Your task to perform on an android device: clear all cookies in the chrome app Image 0: 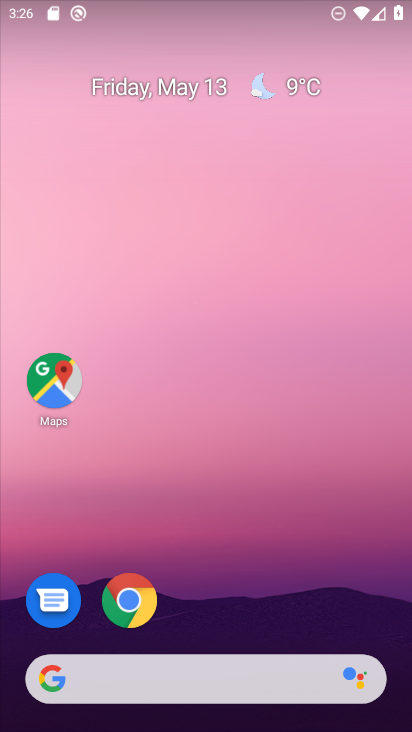
Step 0: drag from (208, 617) to (302, 145)
Your task to perform on an android device: clear all cookies in the chrome app Image 1: 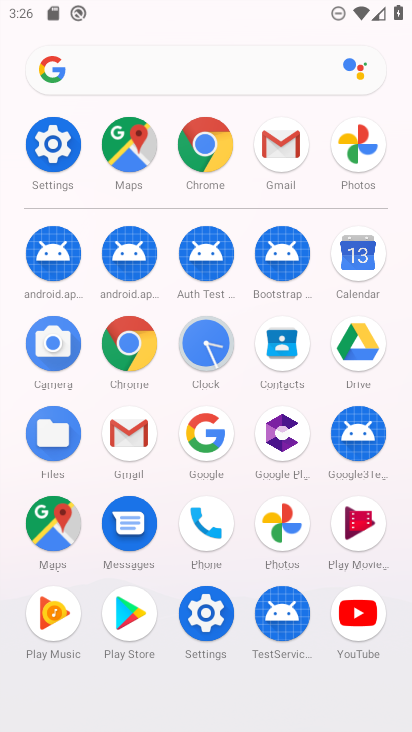
Step 1: click (125, 346)
Your task to perform on an android device: clear all cookies in the chrome app Image 2: 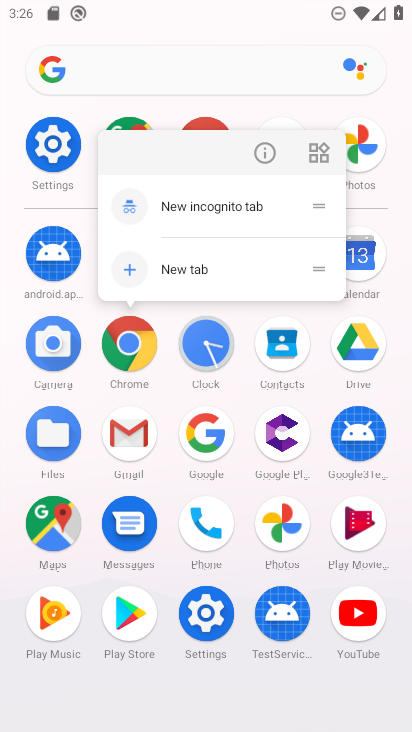
Step 2: click (257, 146)
Your task to perform on an android device: clear all cookies in the chrome app Image 3: 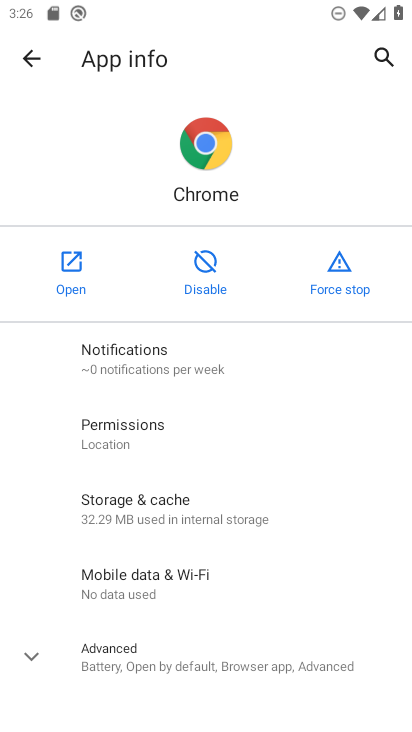
Step 3: click (77, 262)
Your task to perform on an android device: clear all cookies in the chrome app Image 4: 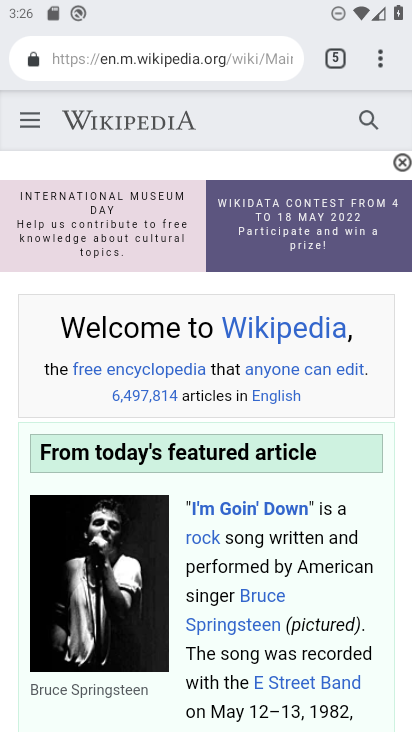
Step 4: drag from (382, 46) to (201, 345)
Your task to perform on an android device: clear all cookies in the chrome app Image 5: 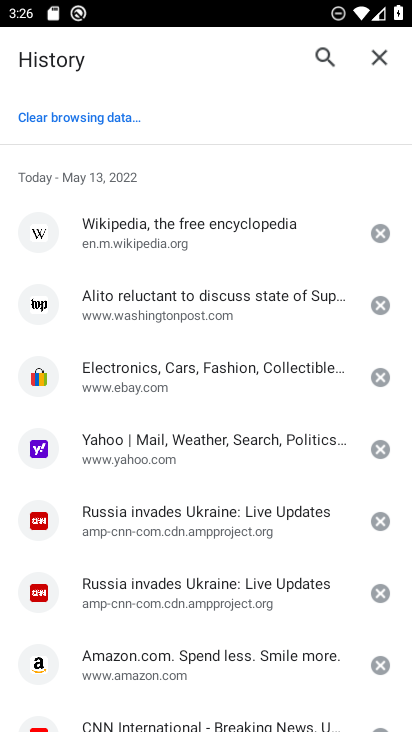
Step 5: drag from (246, 531) to (285, 143)
Your task to perform on an android device: clear all cookies in the chrome app Image 6: 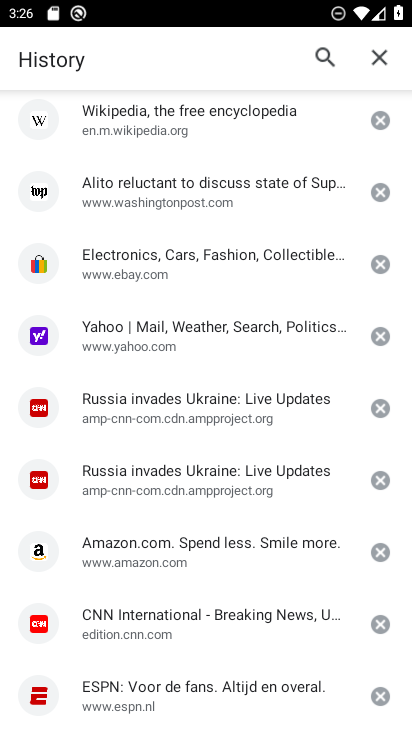
Step 6: drag from (155, 187) to (203, 610)
Your task to perform on an android device: clear all cookies in the chrome app Image 7: 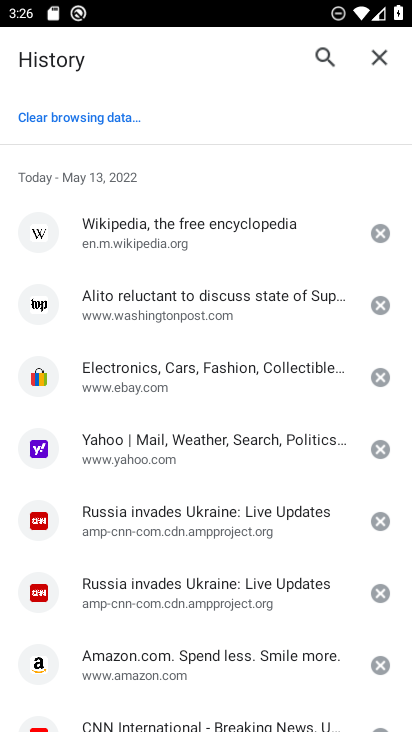
Step 7: click (87, 116)
Your task to perform on an android device: clear all cookies in the chrome app Image 8: 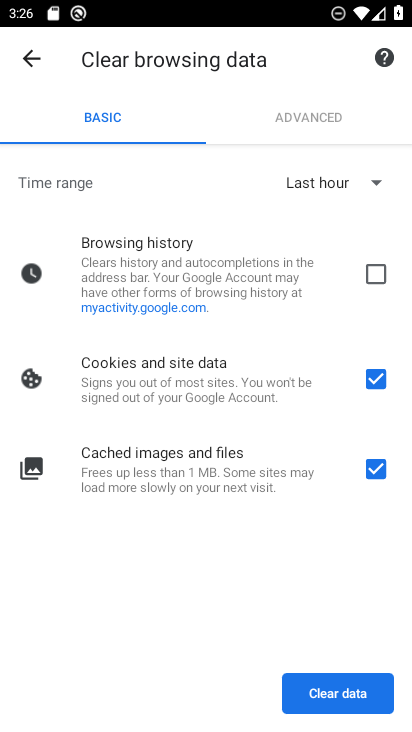
Step 8: click (327, 681)
Your task to perform on an android device: clear all cookies in the chrome app Image 9: 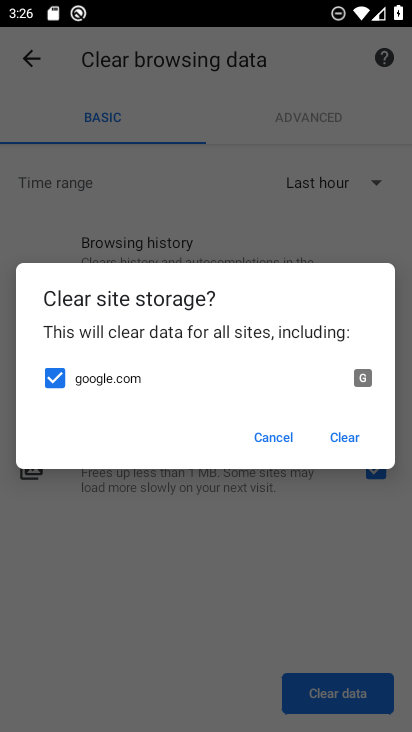
Step 9: click (339, 441)
Your task to perform on an android device: clear all cookies in the chrome app Image 10: 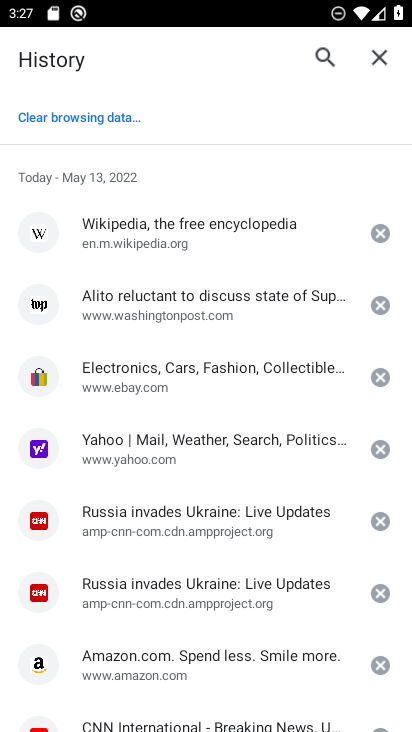
Step 10: task complete